Your task to perform on an android device: move an email to a new category in the gmail app Image 0: 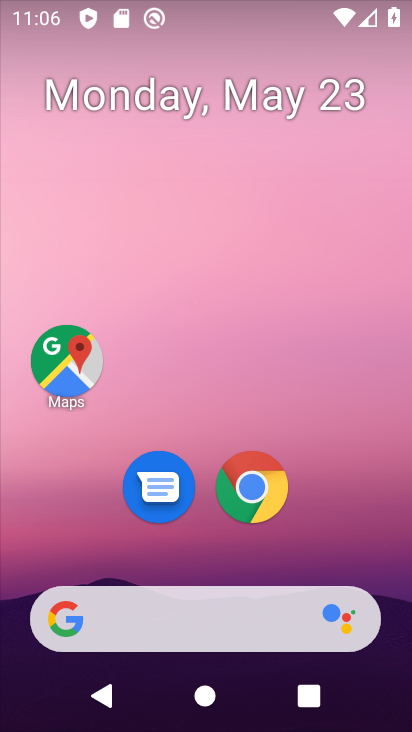
Step 0: drag from (139, 603) to (242, 131)
Your task to perform on an android device: move an email to a new category in the gmail app Image 1: 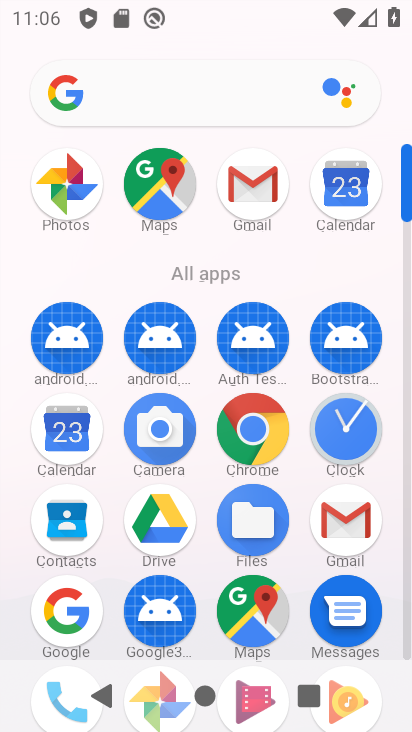
Step 1: click (358, 531)
Your task to perform on an android device: move an email to a new category in the gmail app Image 2: 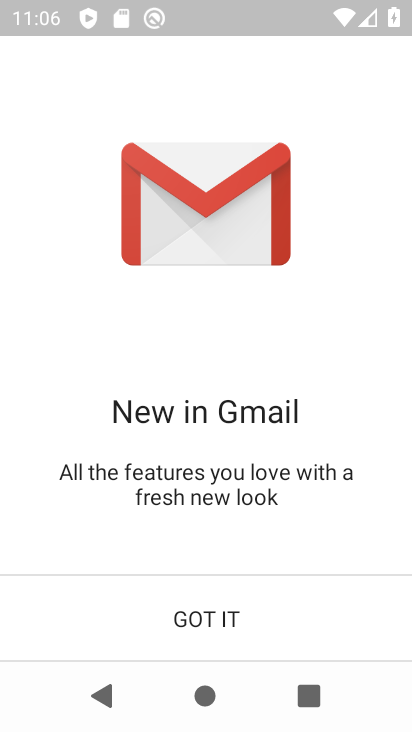
Step 2: click (222, 641)
Your task to perform on an android device: move an email to a new category in the gmail app Image 3: 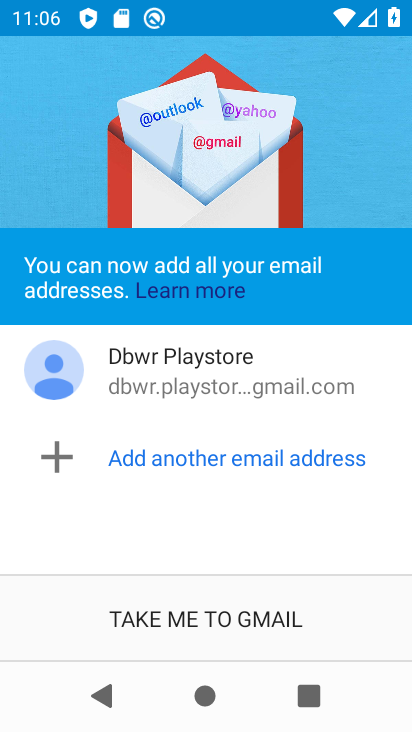
Step 3: click (305, 648)
Your task to perform on an android device: move an email to a new category in the gmail app Image 4: 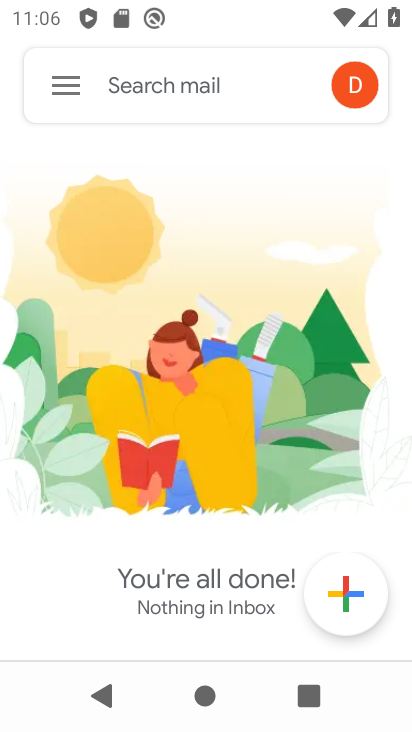
Step 4: click (57, 96)
Your task to perform on an android device: move an email to a new category in the gmail app Image 5: 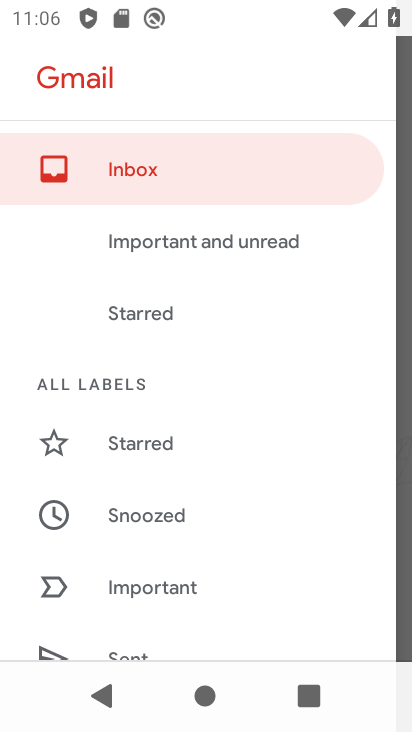
Step 5: drag from (110, 639) to (228, 296)
Your task to perform on an android device: move an email to a new category in the gmail app Image 6: 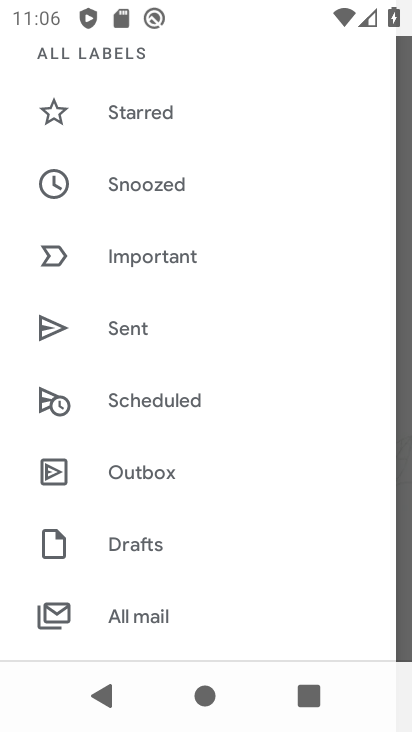
Step 6: click (233, 633)
Your task to perform on an android device: move an email to a new category in the gmail app Image 7: 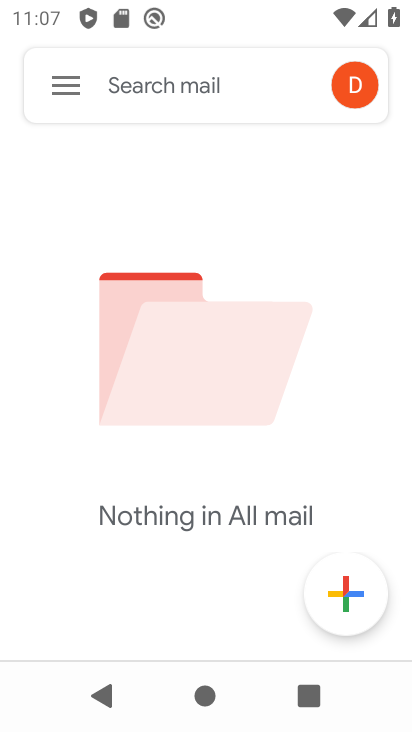
Step 7: task complete